Your task to perform on an android device: check the backup settings in the google photos Image 0: 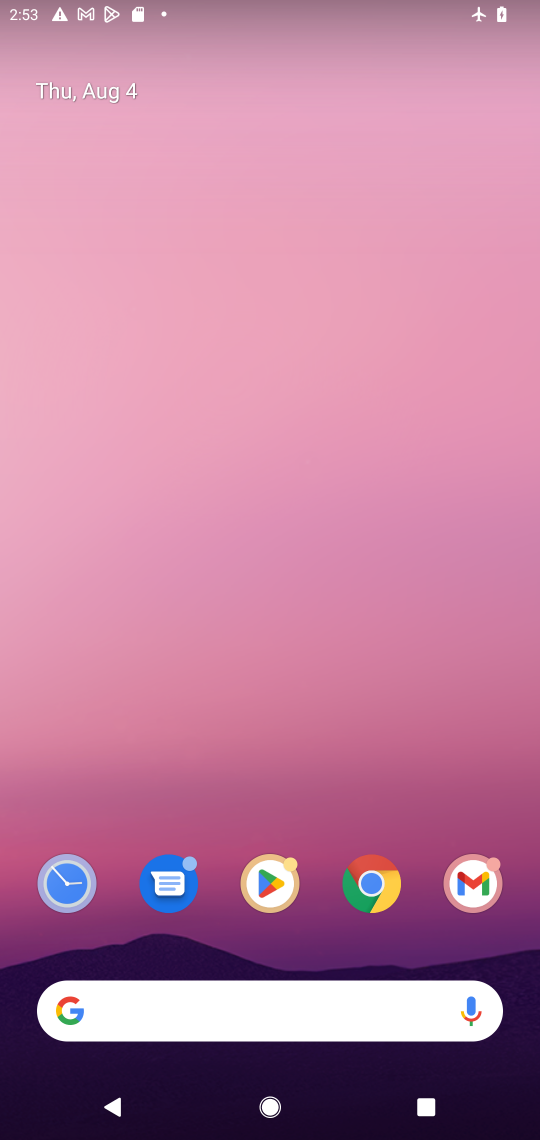
Step 0: drag from (202, 877) to (210, 217)
Your task to perform on an android device: check the backup settings in the google photos Image 1: 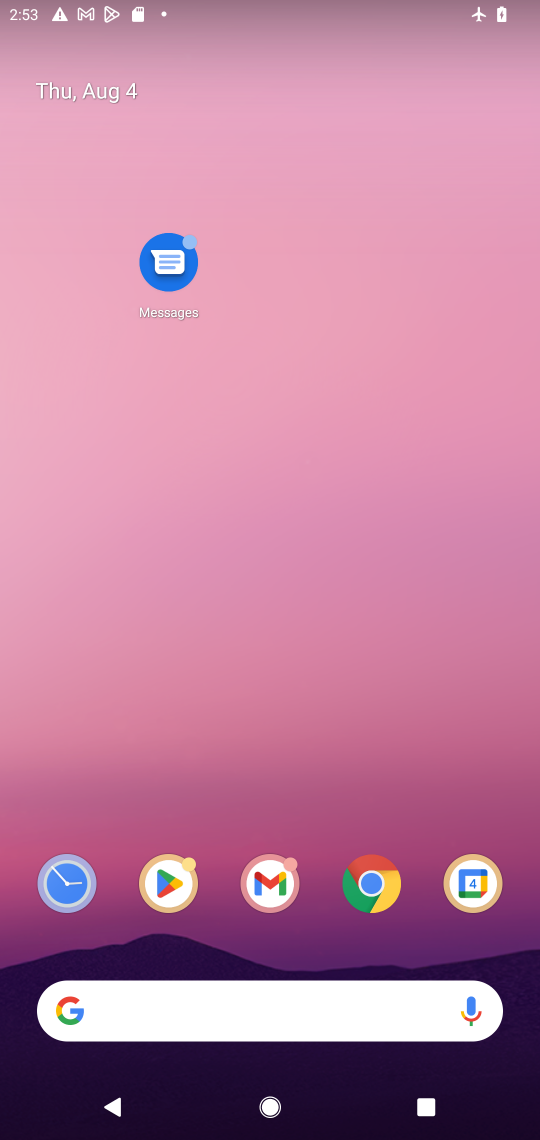
Step 1: drag from (221, 967) to (217, 83)
Your task to perform on an android device: check the backup settings in the google photos Image 2: 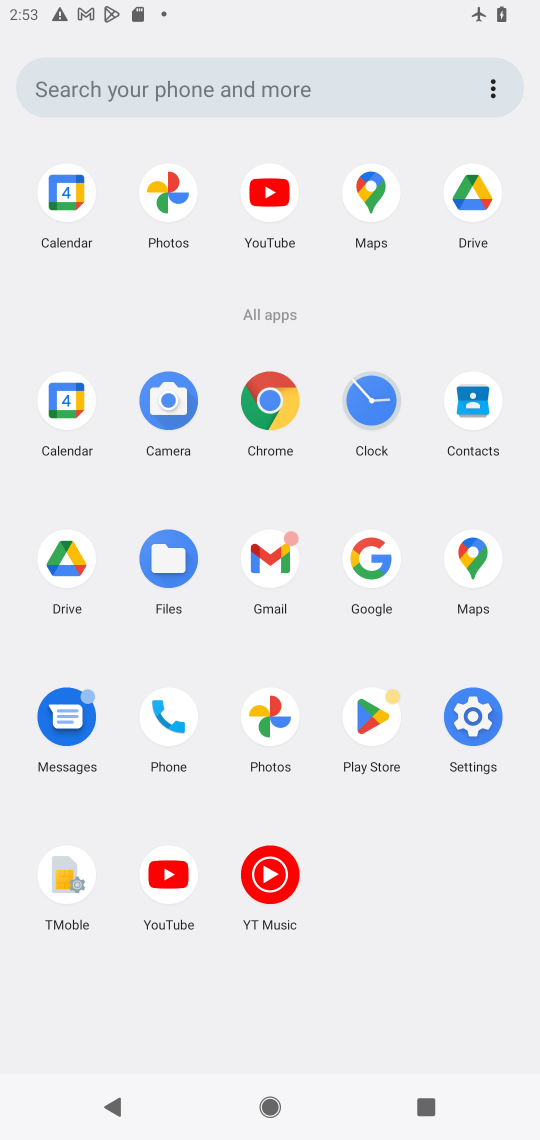
Step 2: click (163, 197)
Your task to perform on an android device: check the backup settings in the google photos Image 3: 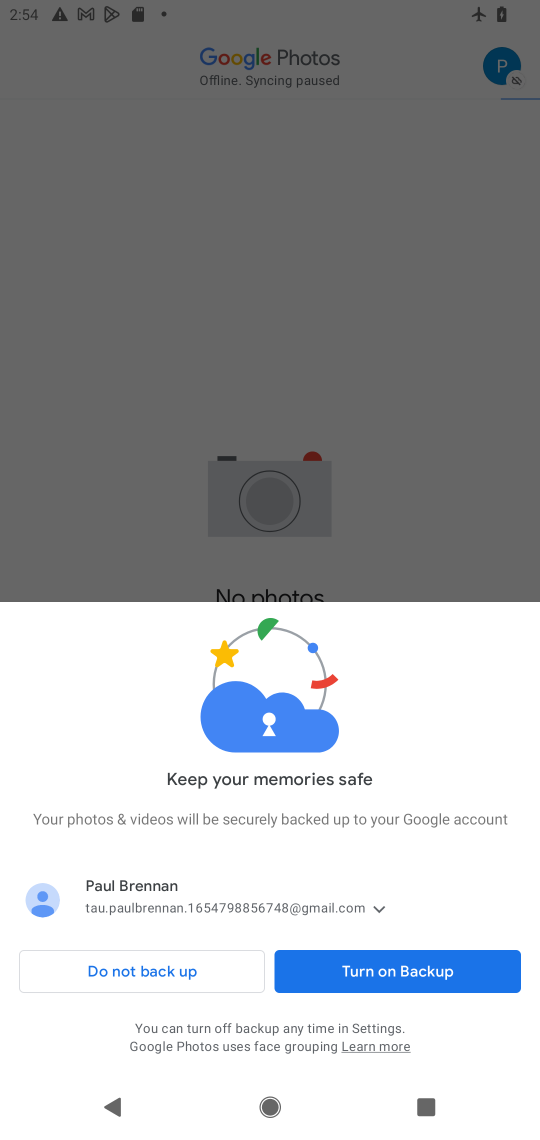
Step 3: click (348, 970)
Your task to perform on an android device: check the backup settings in the google photos Image 4: 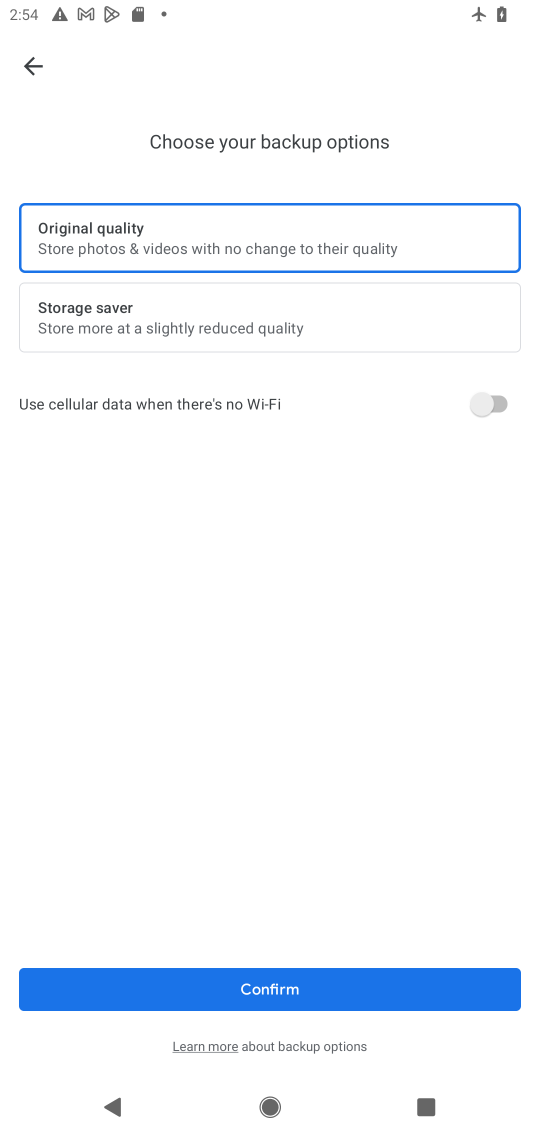
Step 4: task complete